Your task to perform on an android device: see sites visited before in the chrome app Image 0: 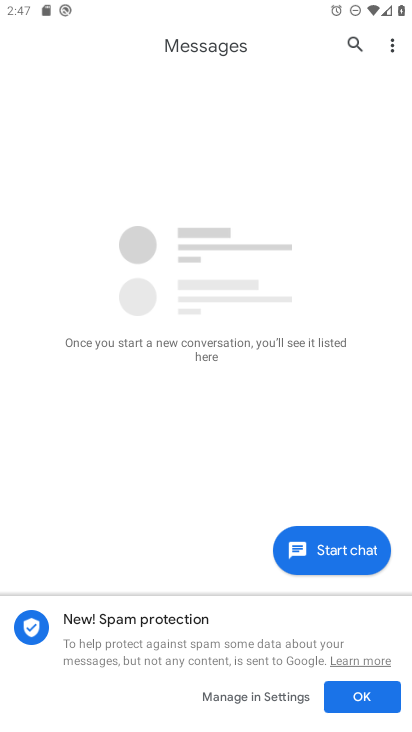
Step 0: press home button
Your task to perform on an android device: see sites visited before in the chrome app Image 1: 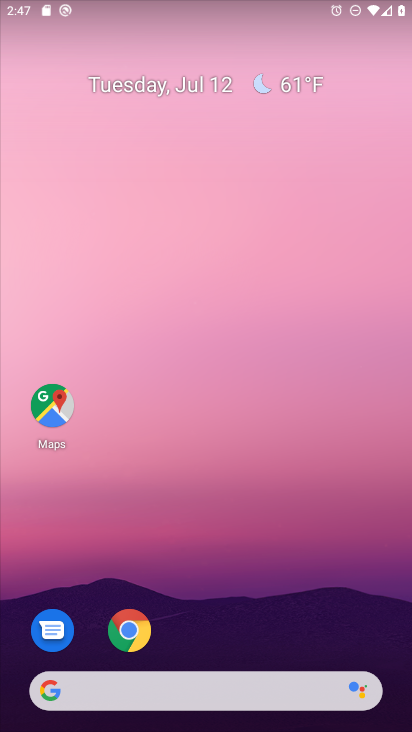
Step 1: click (136, 641)
Your task to perform on an android device: see sites visited before in the chrome app Image 2: 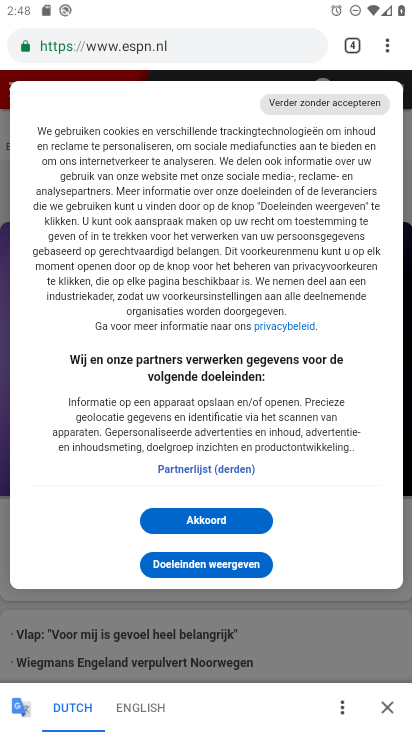
Step 2: click (384, 48)
Your task to perform on an android device: see sites visited before in the chrome app Image 3: 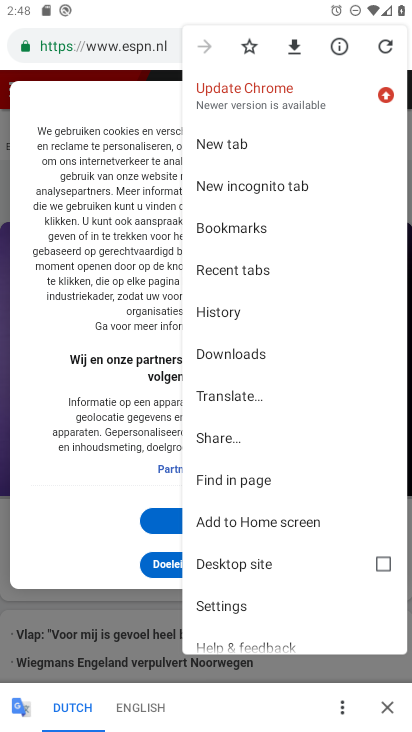
Step 3: click (272, 272)
Your task to perform on an android device: see sites visited before in the chrome app Image 4: 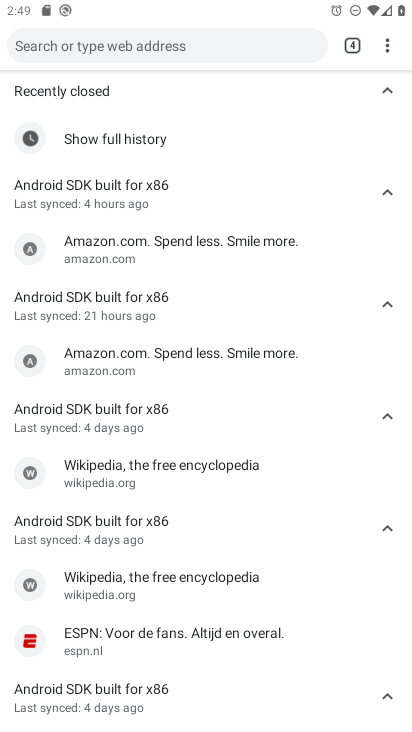
Step 4: task complete